Your task to perform on an android device: Go to location settings Image 0: 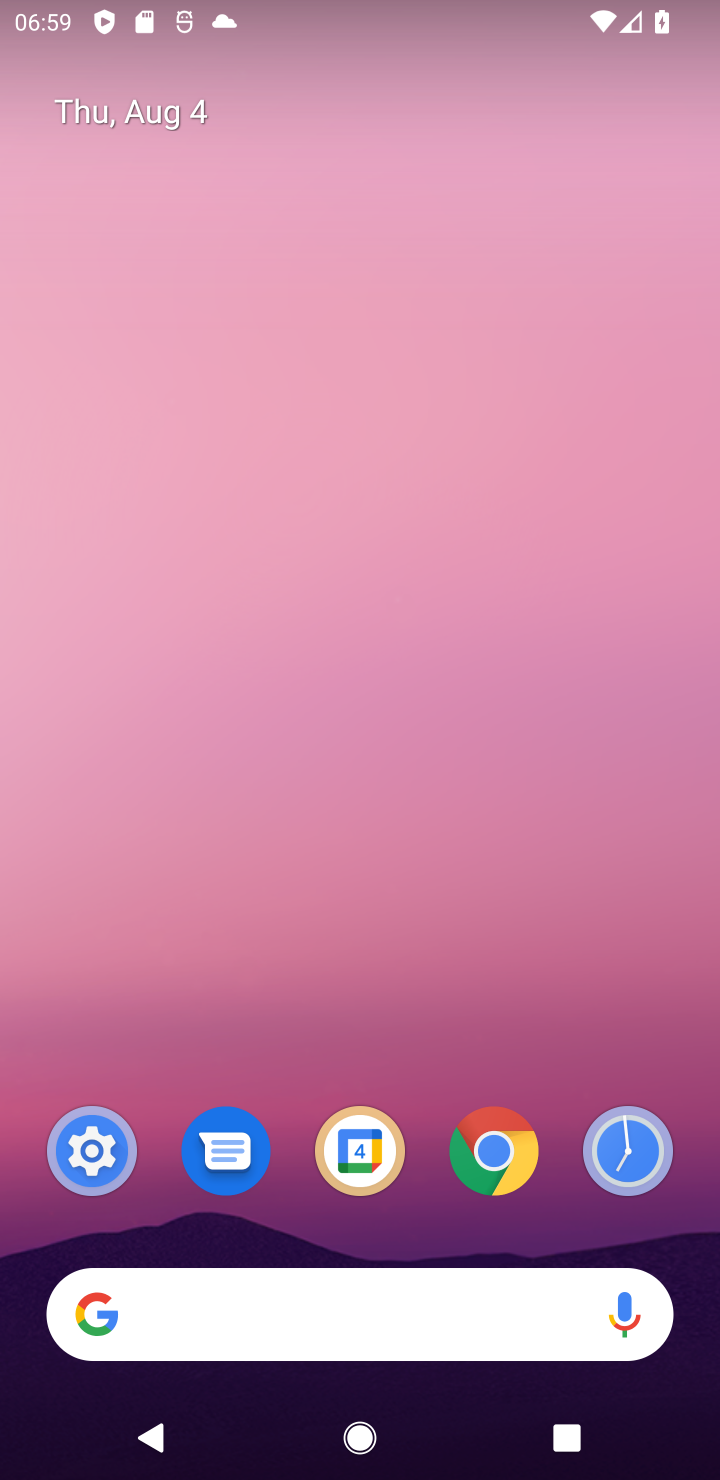
Step 0: click (97, 1201)
Your task to perform on an android device: Go to location settings Image 1: 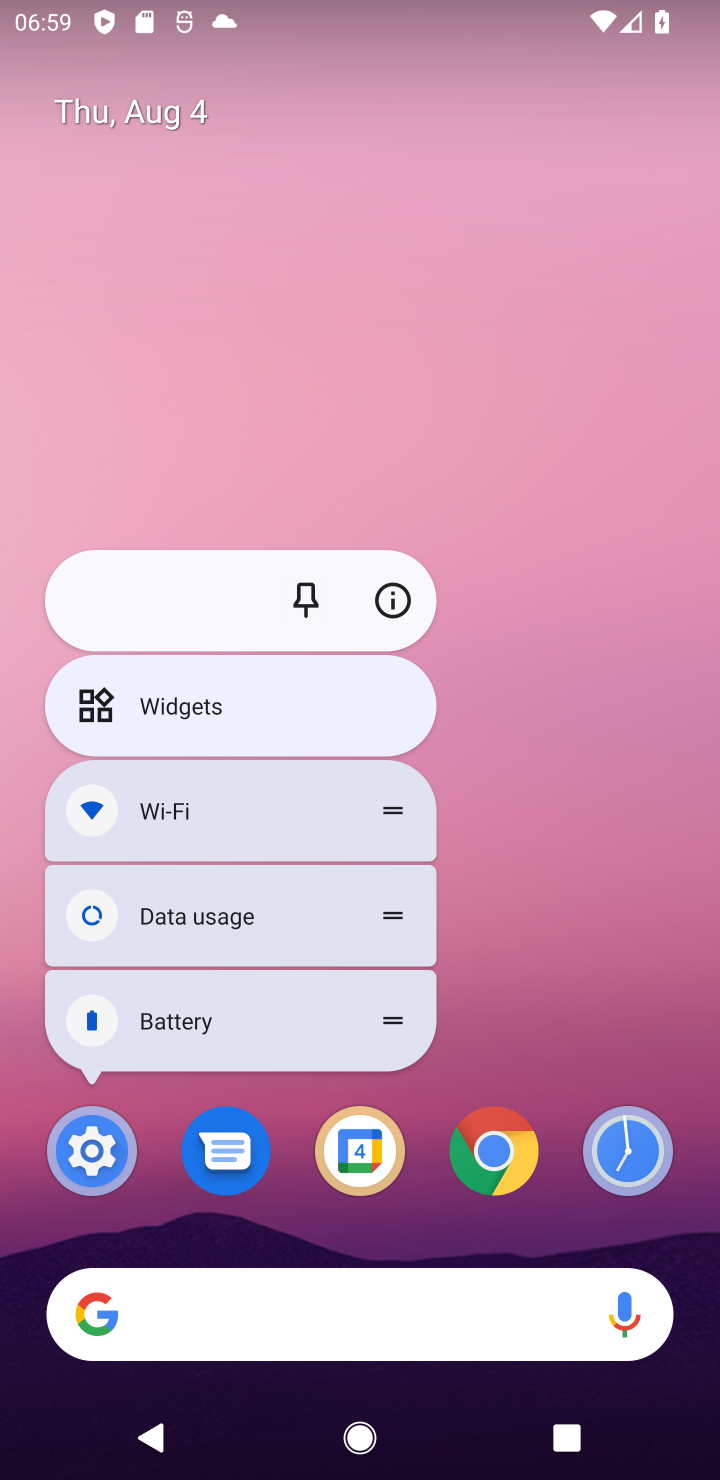
Step 1: click (93, 1158)
Your task to perform on an android device: Go to location settings Image 2: 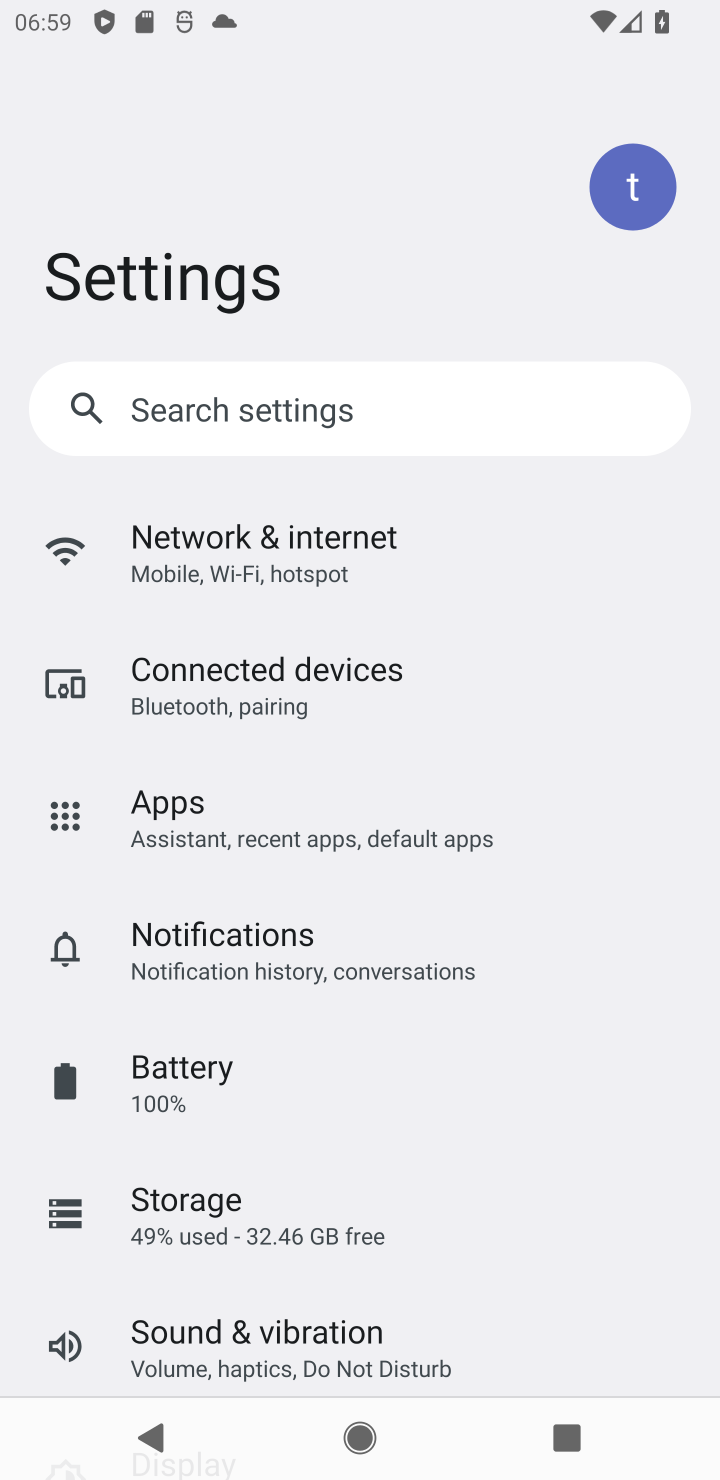
Step 2: drag from (331, 1285) to (311, 472)
Your task to perform on an android device: Go to location settings Image 3: 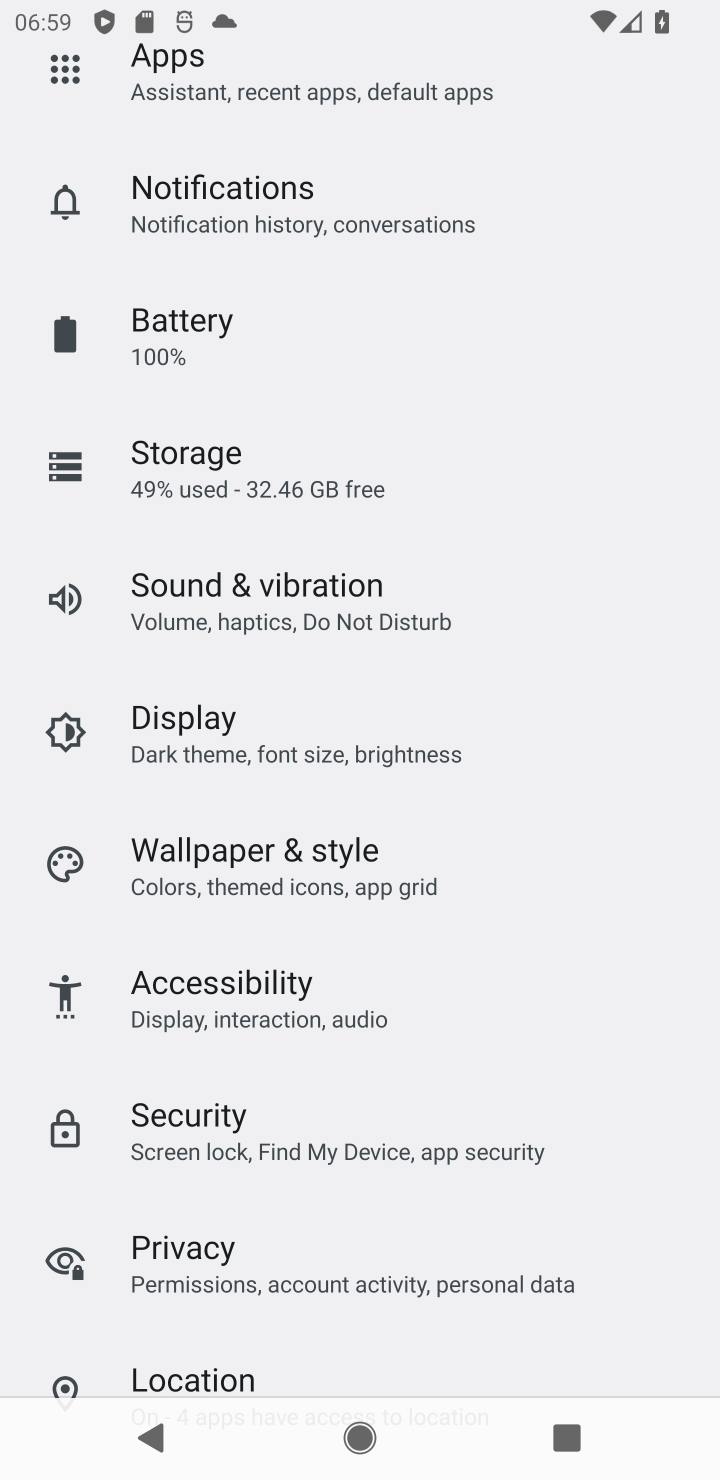
Step 3: drag from (379, 1211) to (393, 559)
Your task to perform on an android device: Go to location settings Image 4: 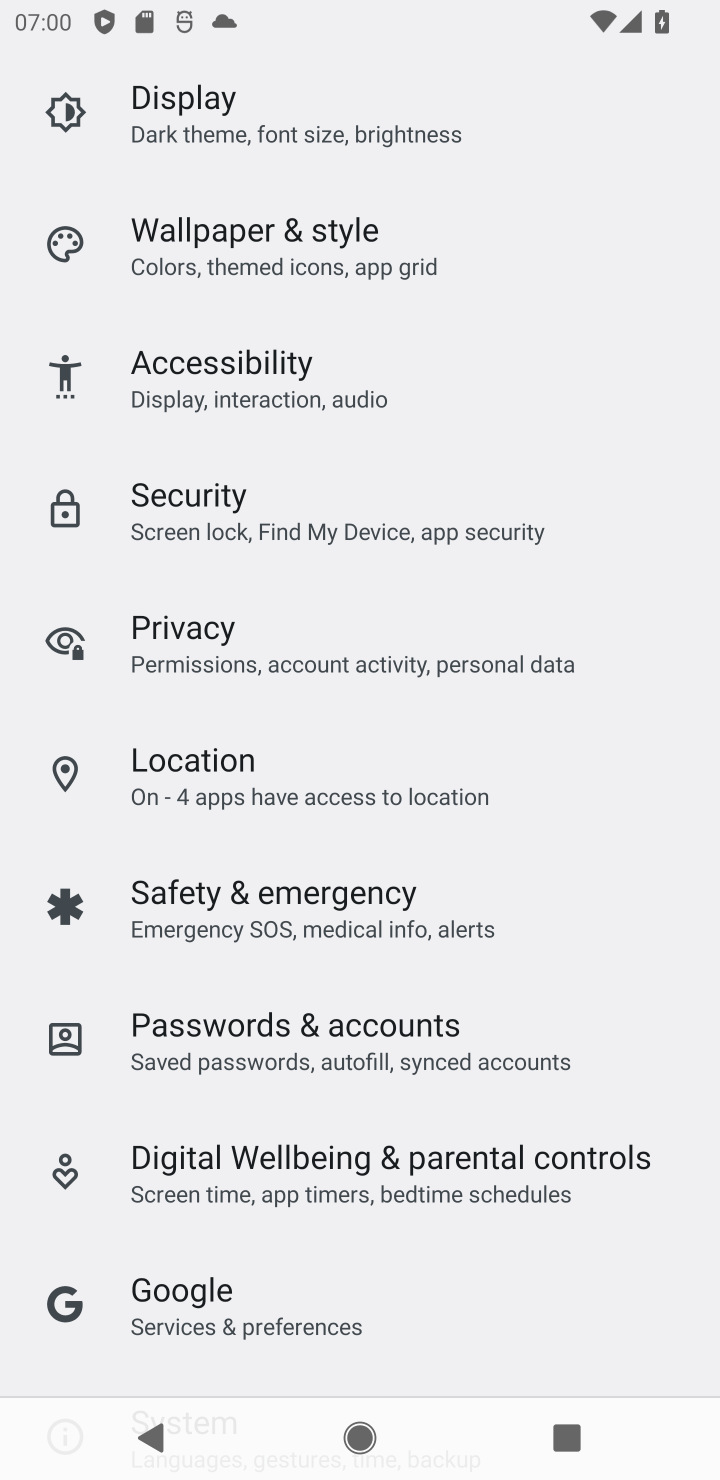
Step 4: click (241, 774)
Your task to perform on an android device: Go to location settings Image 5: 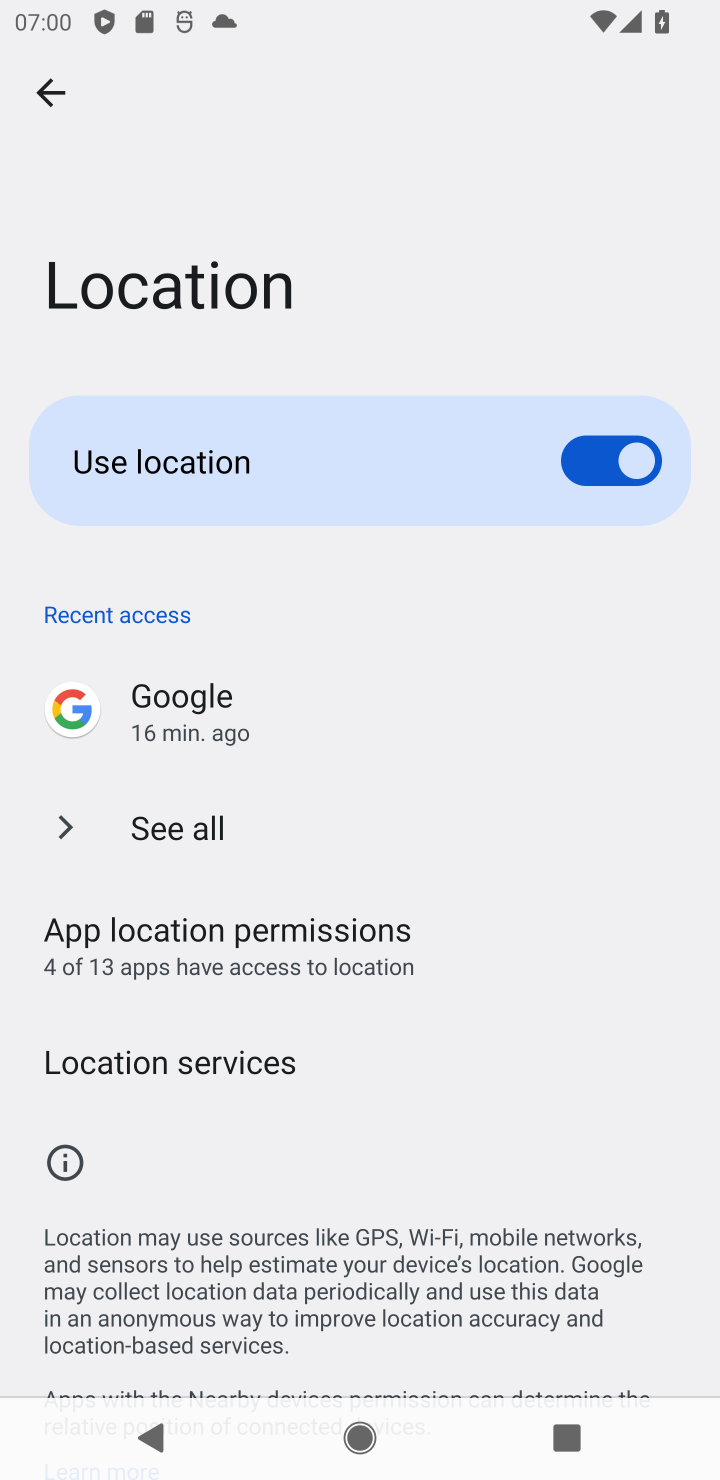
Step 5: task complete